Your task to perform on an android device: open chrome and create a bookmark for the current page Image 0: 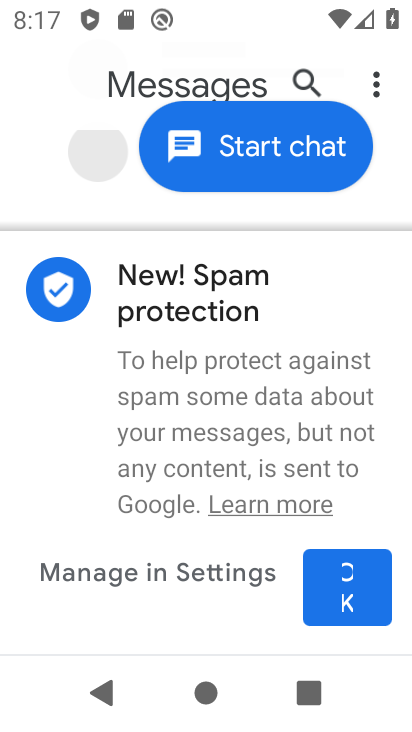
Step 0: press home button
Your task to perform on an android device: open chrome and create a bookmark for the current page Image 1: 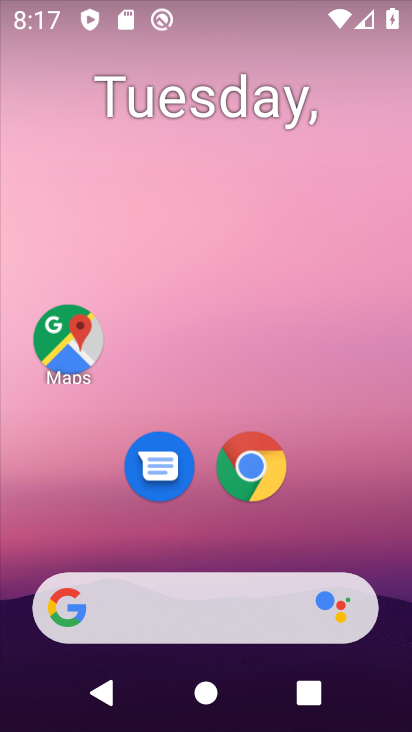
Step 1: drag from (391, 581) to (351, 302)
Your task to perform on an android device: open chrome and create a bookmark for the current page Image 2: 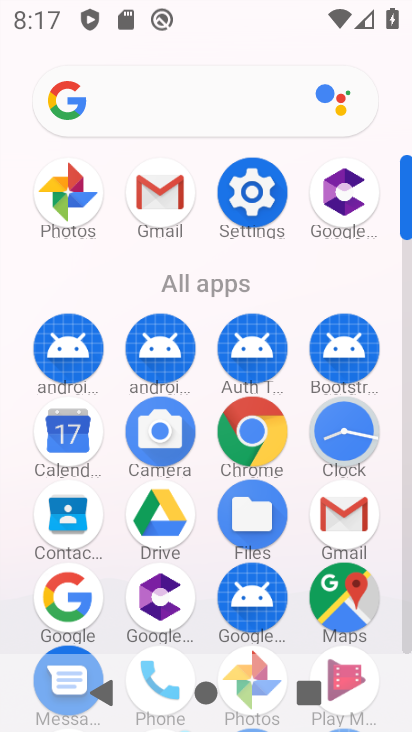
Step 2: click (260, 413)
Your task to perform on an android device: open chrome and create a bookmark for the current page Image 3: 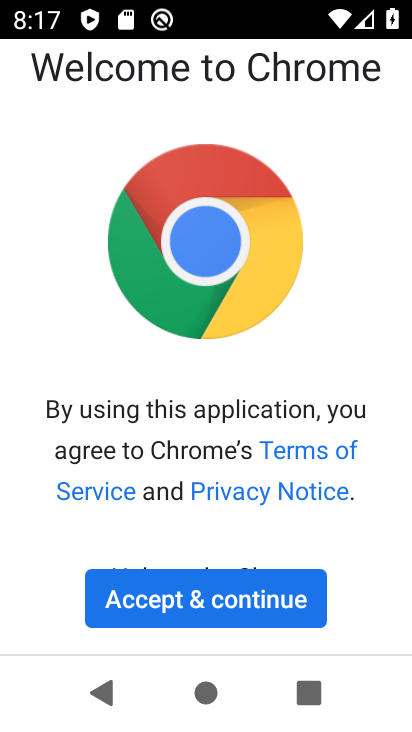
Step 3: click (294, 610)
Your task to perform on an android device: open chrome and create a bookmark for the current page Image 4: 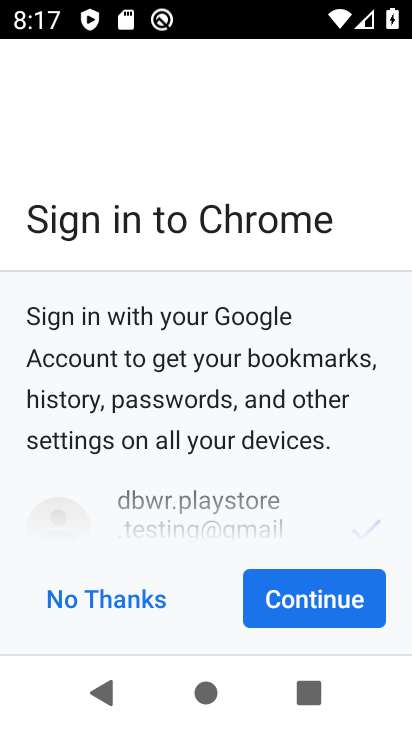
Step 4: click (294, 610)
Your task to perform on an android device: open chrome and create a bookmark for the current page Image 5: 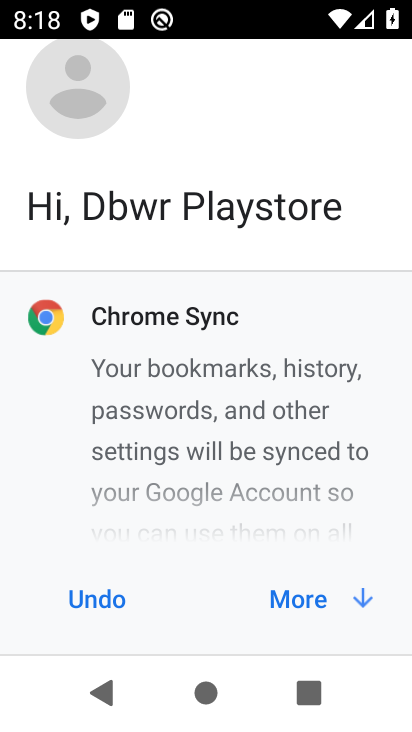
Step 5: click (294, 610)
Your task to perform on an android device: open chrome and create a bookmark for the current page Image 6: 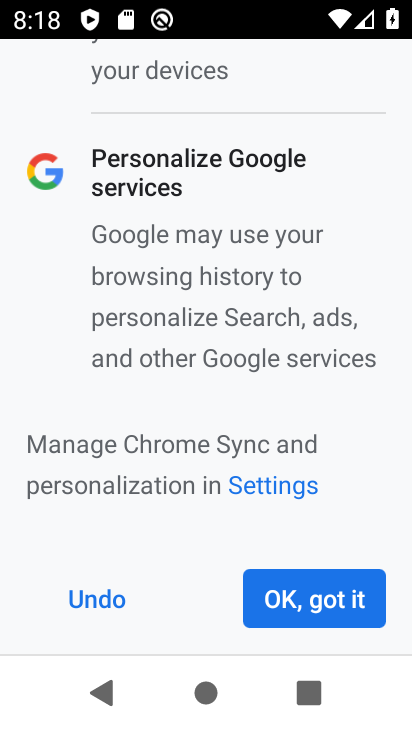
Step 6: click (293, 603)
Your task to perform on an android device: open chrome and create a bookmark for the current page Image 7: 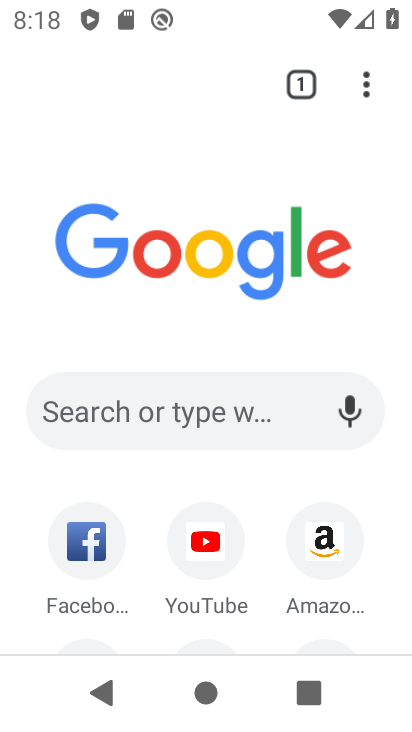
Step 7: click (360, 81)
Your task to perform on an android device: open chrome and create a bookmark for the current page Image 8: 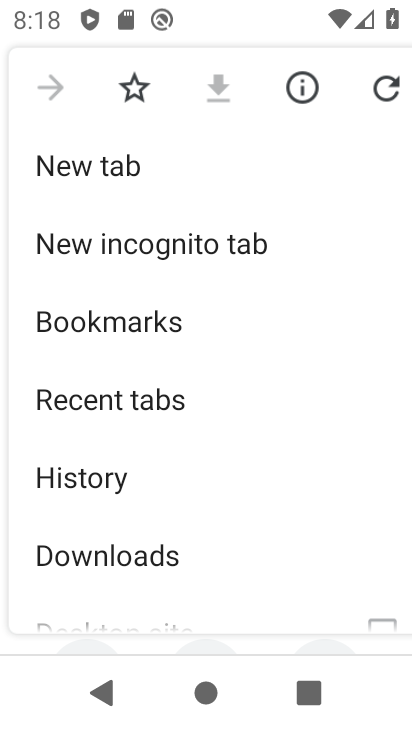
Step 8: click (140, 80)
Your task to perform on an android device: open chrome and create a bookmark for the current page Image 9: 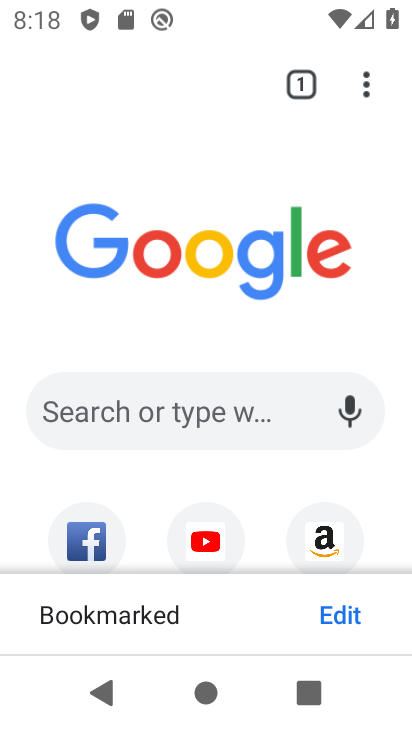
Step 9: task complete